Your task to perform on an android device: turn off sleep mode Image 0: 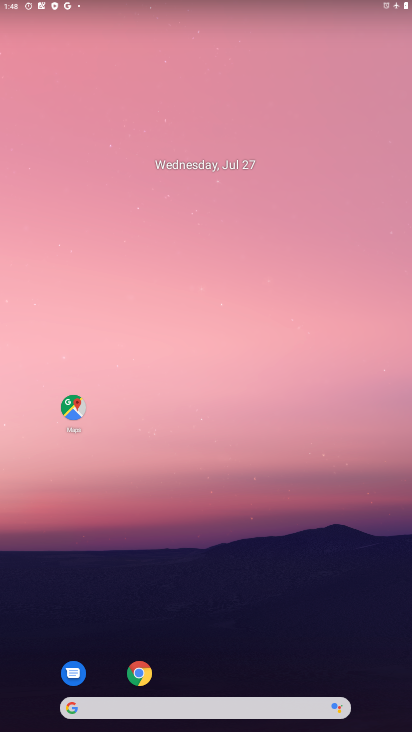
Step 0: drag from (241, 685) to (184, 4)
Your task to perform on an android device: turn off sleep mode Image 1: 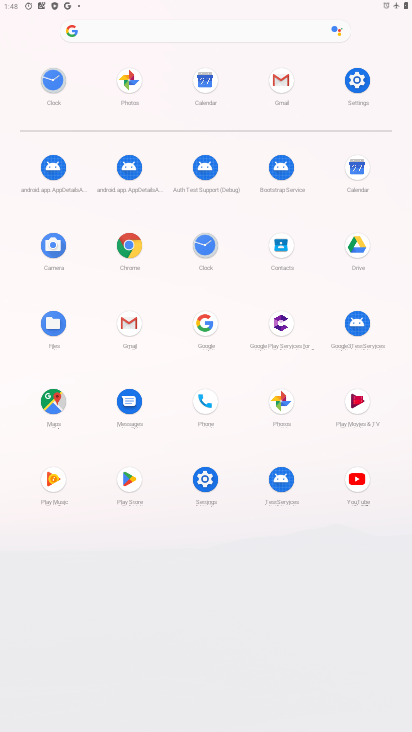
Step 1: click (353, 80)
Your task to perform on an android device: turn off sleep mode Image 2: 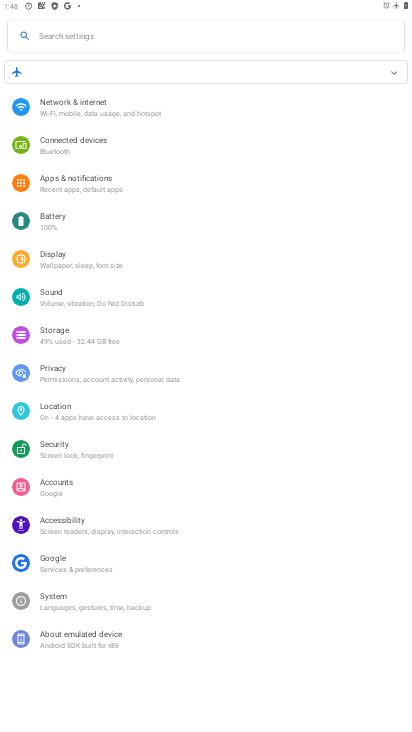
Step 2: click (45, 266)
Your task to perform on an android device: turn off sleep mode Image 3: 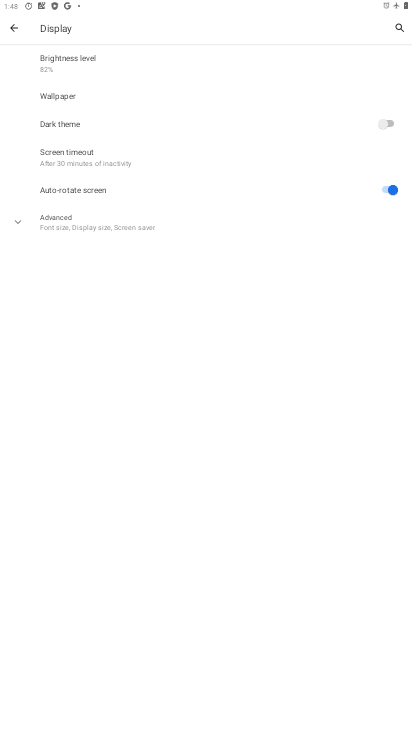
Step 3: click (12, 228)
Your task to perform on an android device: turn off sleep mode Image 4: 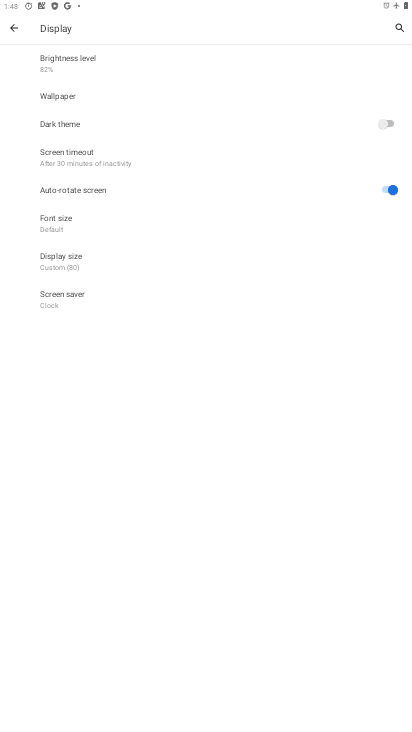
Step 4: task complete